Your task to perform on an android device: turn on sleep mode Image 0: 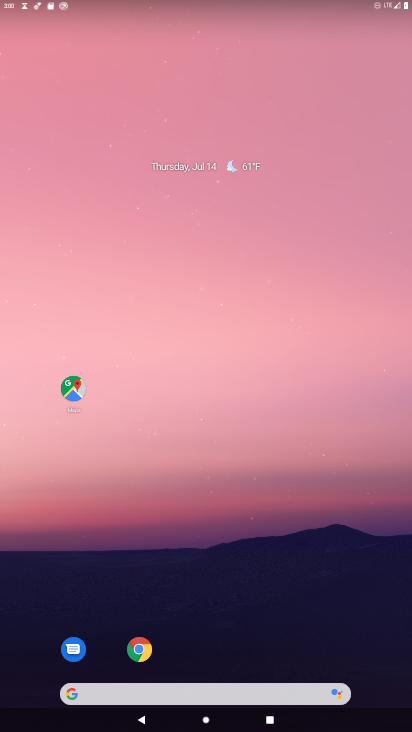
Step 0: drag from (180, 674) to (148, 8)
Your task to perform on an android device: turn on sleep mode Image 1: 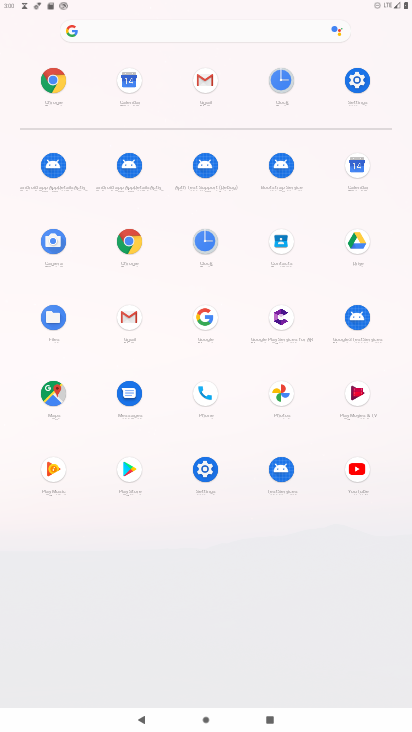
Step 1: click (352, 71)
Your task to perform on an android device: turn on sleep mode Image 2: 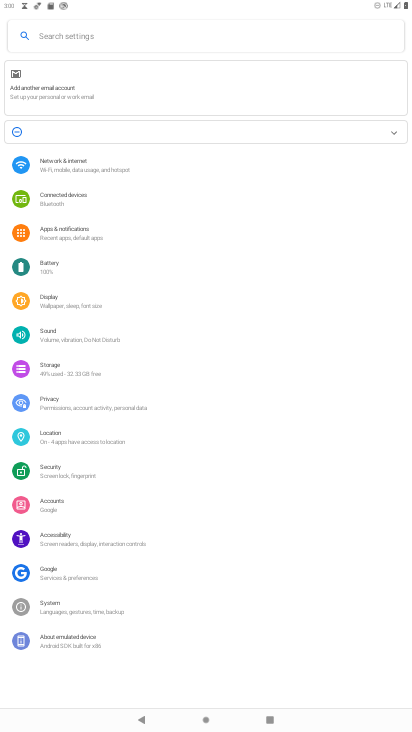
Step 2: click (87, 303)
Your task to perform on an android device: turn on sleep mode Image 3: 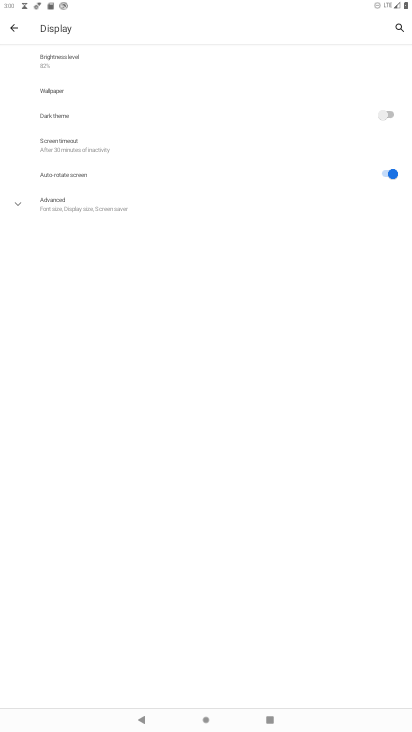
Step 3: task complete